Your task to perform on an android device: turn pop-ups on in chrome Image 0: 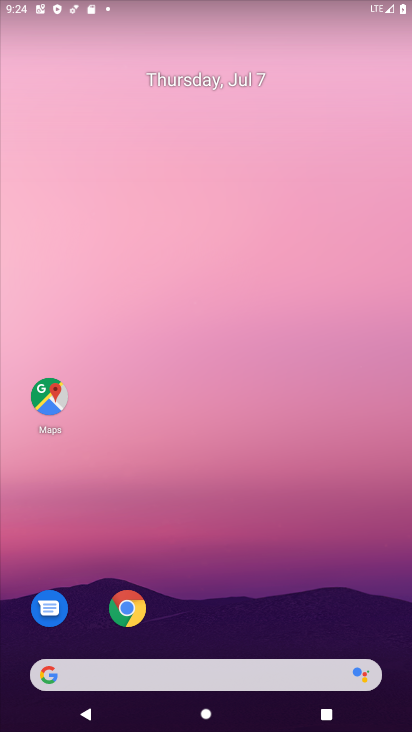
Step 0: click (130, 608)
Your task to perform on an android device: turn pop-ups on in chrome Image 1: 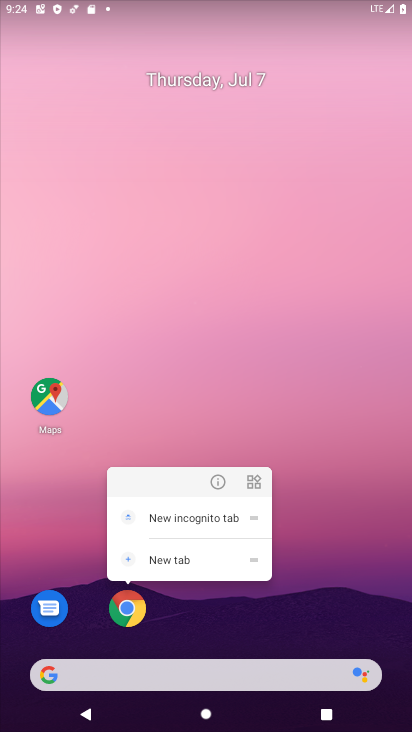
Step 1: click (129, 615)
Your task to perform on an android device: turn pop-ups on in chrome Image 2: 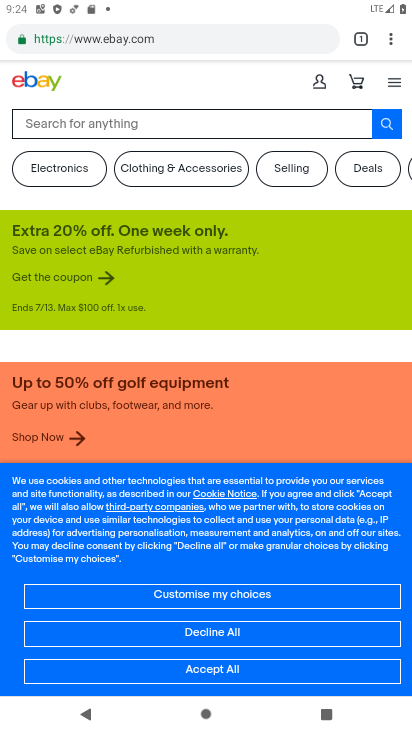
Step 2: click (388, 42)
Your task to perform on an android device: turn pop-ups on in chrome Image 3: 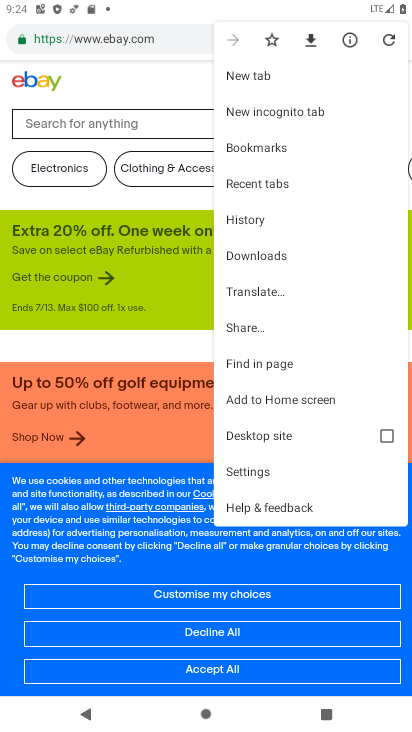
Step 3: click (263, 476)
Your task to perform on an android device: turn pop-ups on in chrome Image 4: 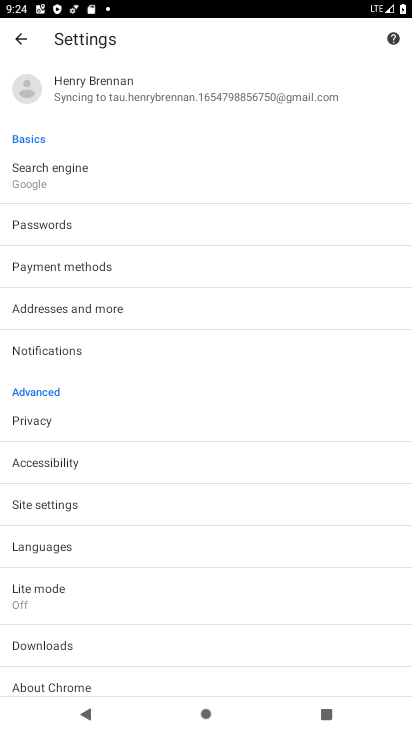
Step 4: click (50, 509)
Your task to perform on an android device: turn pop-ups on in chrome Image 5: 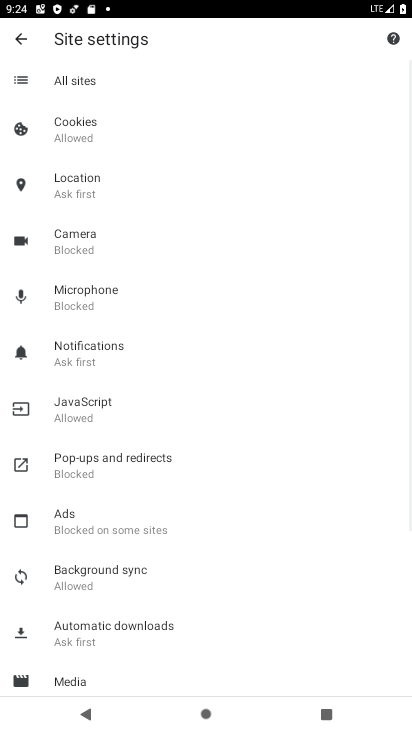
Step 5: click (97, 460)
Your task to perform on an android device: turn pop-ups on in chrome Image 6: 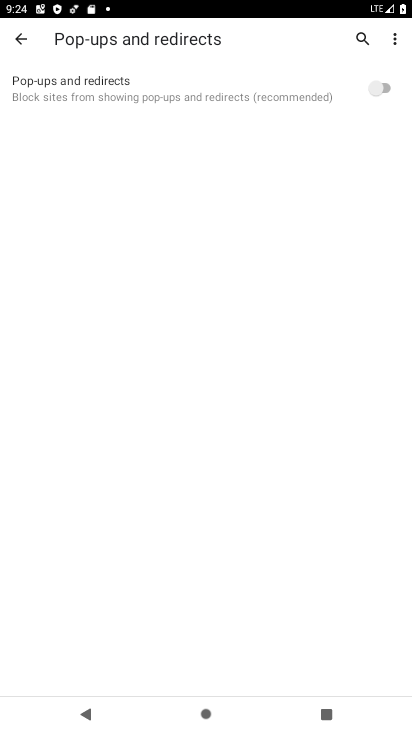
Step 6: click (393, 82)
Your task to perform on an android device: turn pop-ups on in chrome Image 7: 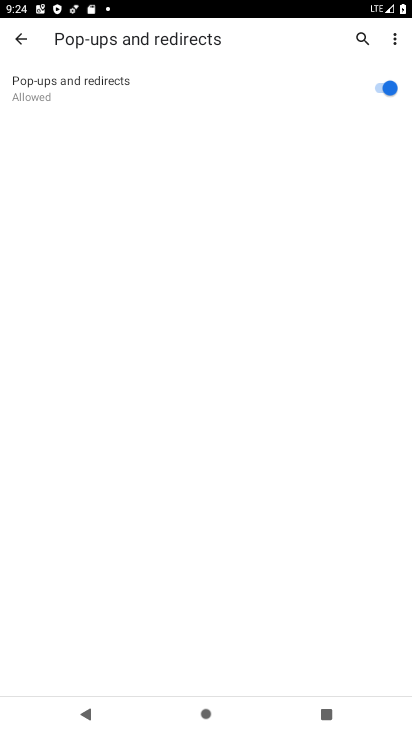
Step 7: task complete